Your task to perform on an android device: open app "Google Drive" Image 0: 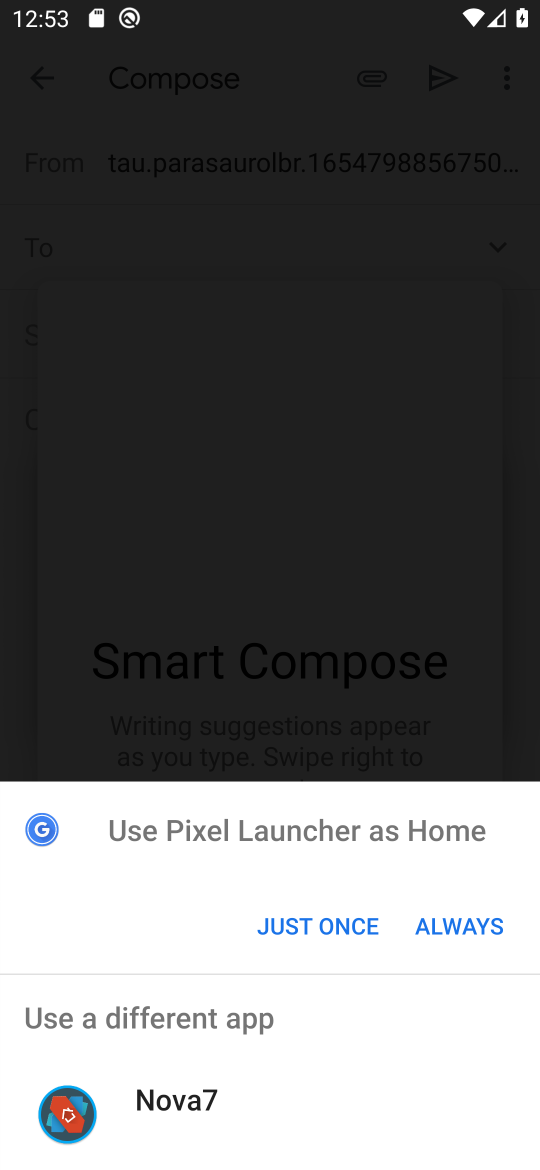
Step 0: click (297, 931)
Your task to perform on an android device: open app "Google Drive" Image 1: 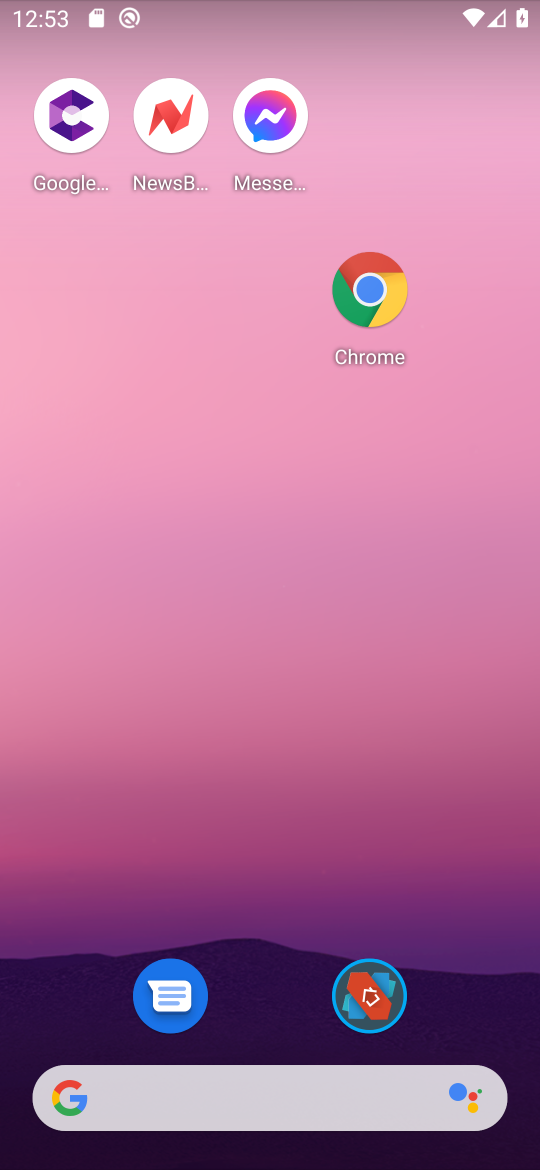
Step 1: drag from (250, 1037) to (284, 98)
Your task to perform on an android device: open app "Google Drive" Image 2: 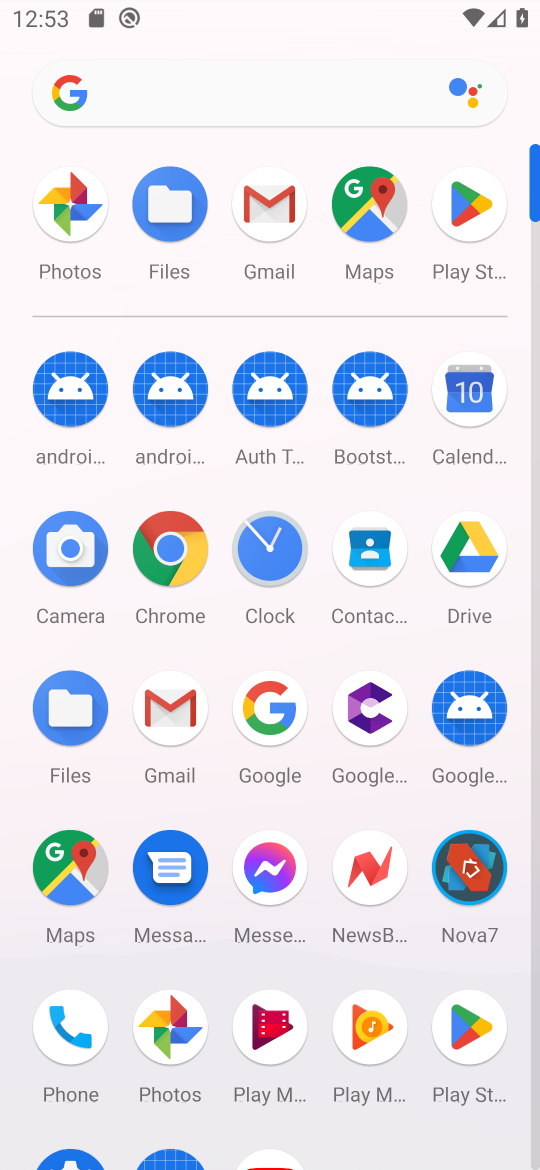
Step 2: click (482, 223)
Your task to perform on an android device: open app "Google Drive" Image 3: 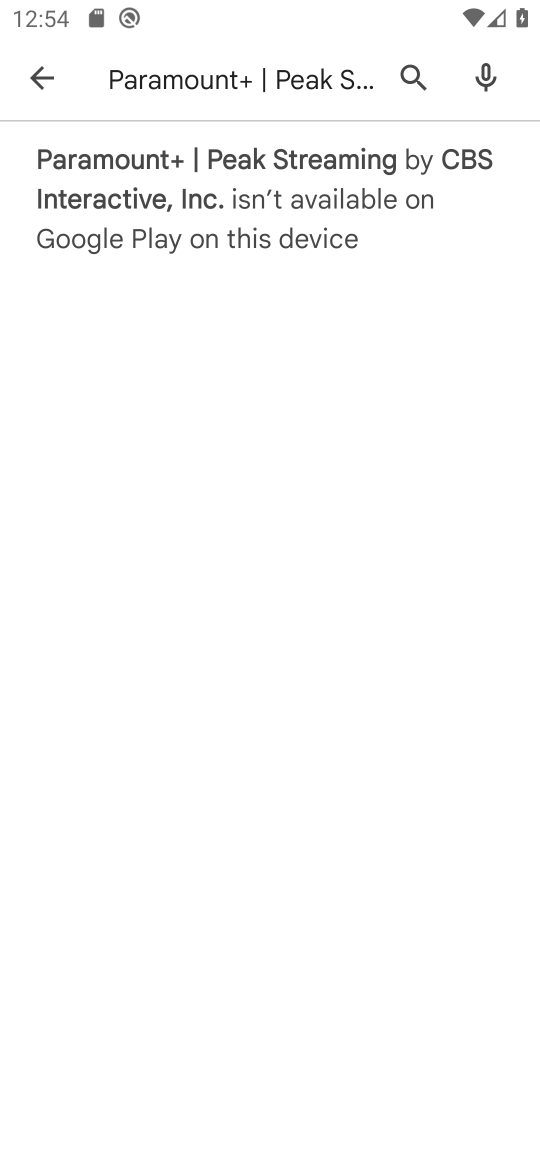
Step 3: click (44, 95)
Your task to perform on an android device: open app "Google Drive" Image 4: 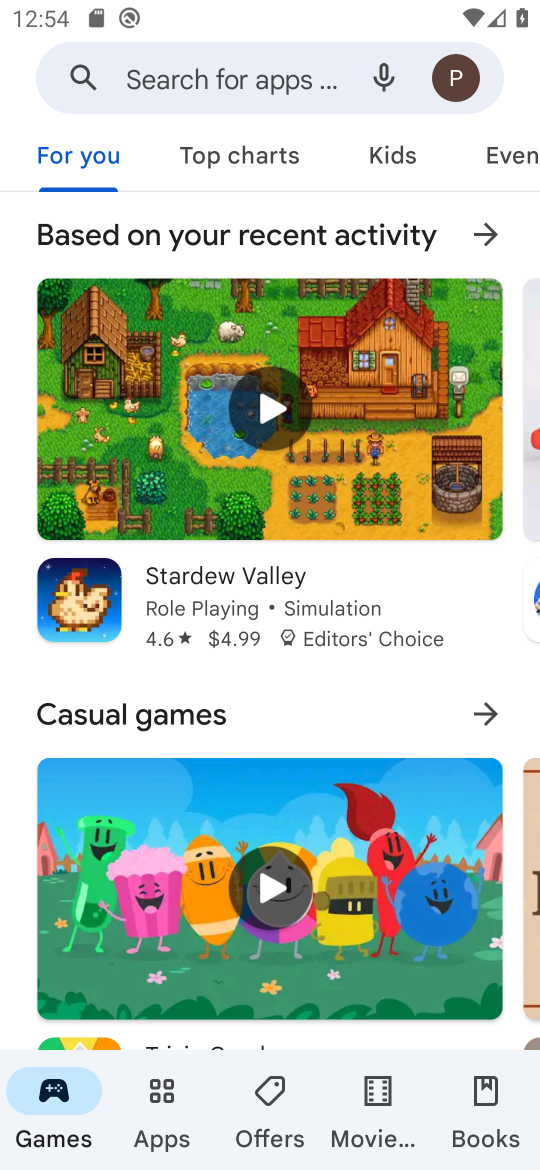
Step 4: click (211, 81)
Your task to perform on an android device: open app "Google Drive" Image 5: 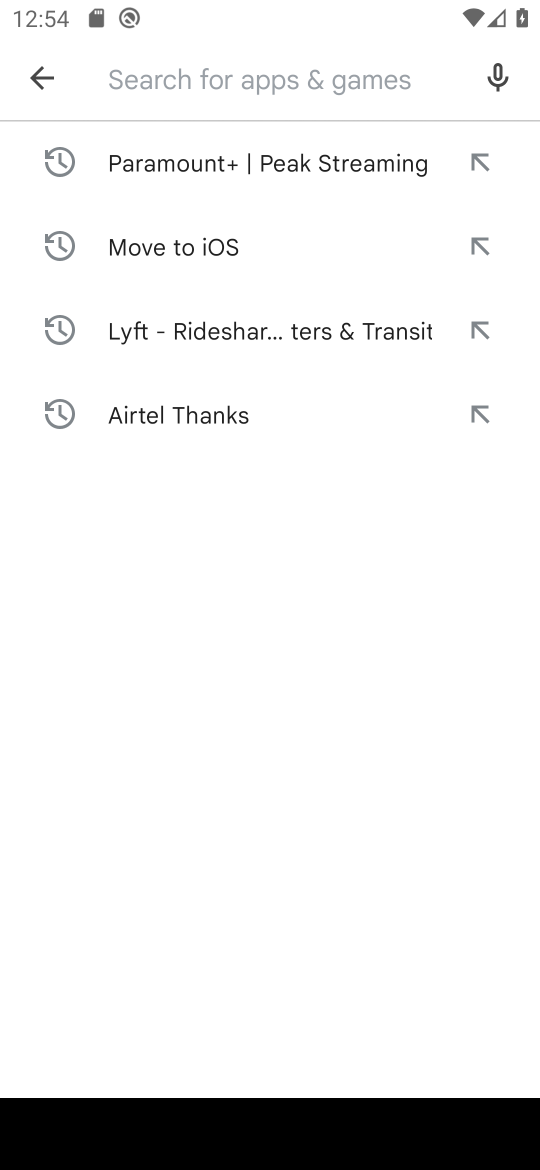
Step 5: type "Google Drive"
Your task to perform on an android device: open app "Google Drive" Image 6: 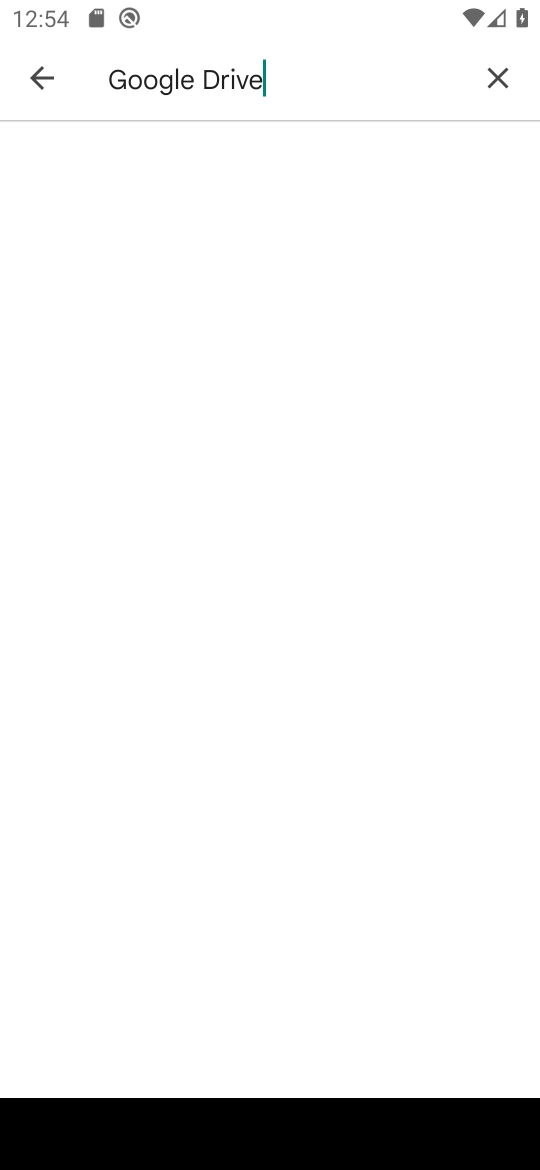
Step 6: press enter
Your task to perform on an android device: open app "Google Drive" Image 7: 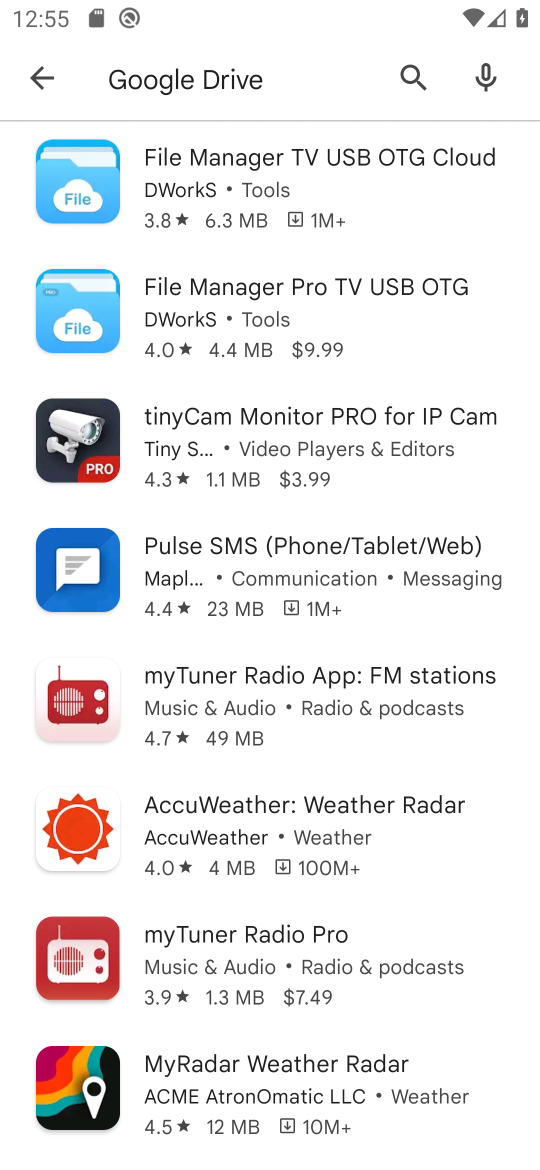
Step 7: task complete